Your task to perform on an android device: Open the phone app and click the voicemail tab. Image 0: 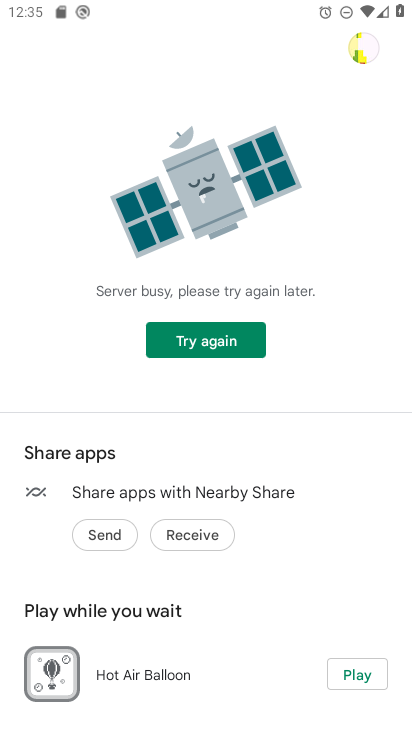
Step 0: press home button
Your task to perform on an android device: Open the phone app and click the voicemail tab. Image 1: 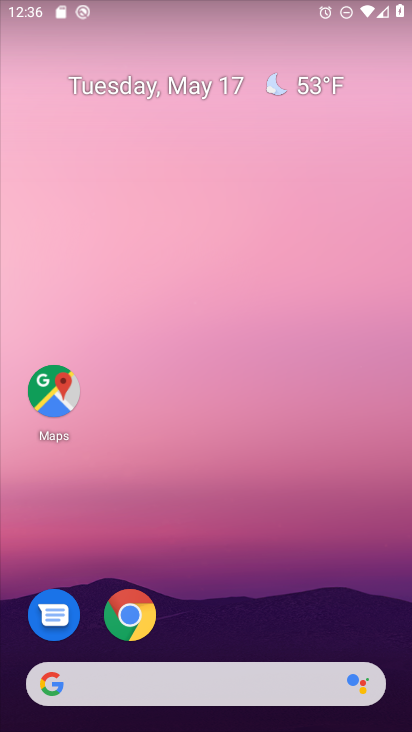
Step 1: drag from (199, 656) to (223, 206)
Your task to perform on an android device: Open the phone app and click the voicemail tab. Image 2: 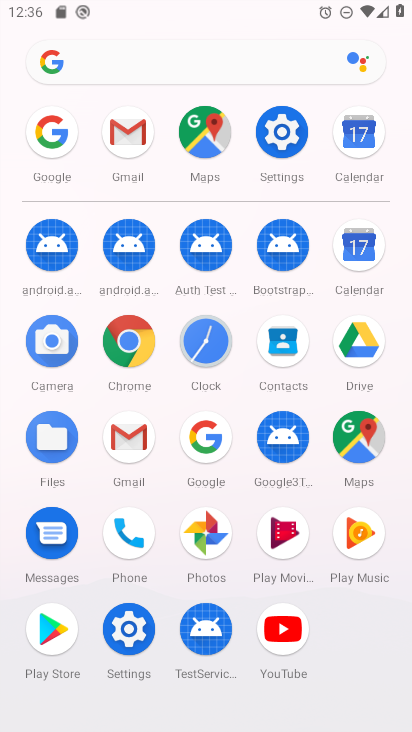
Step 2: click (132, 542)
Your task to perform on an android device: Open the phone app and click the voicemail tab. Image 3: 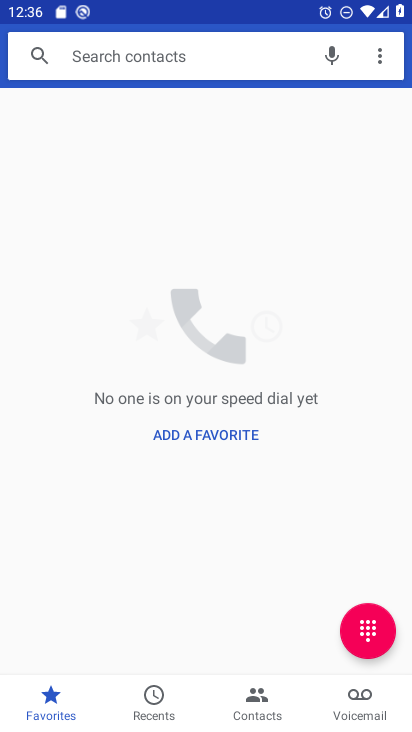
Step 3: click (338, 701)
Your task to perform on an android device: Open the phone app and click the voicemail tab. Image 4: 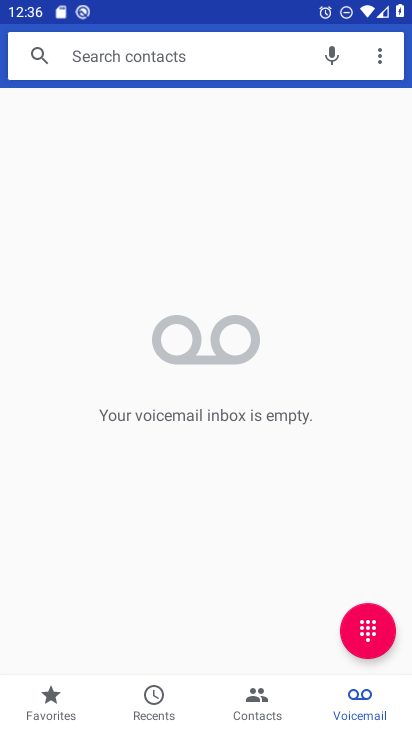
Step 4: task complete